Your task to perform on an android device: Go to location settings Image 0: 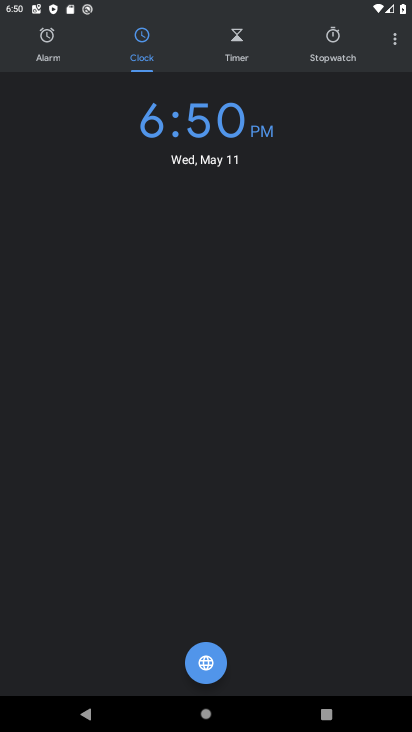
Step 0: click (42, 407)
Your task to perform on an android device: Go to location settings Image 1: 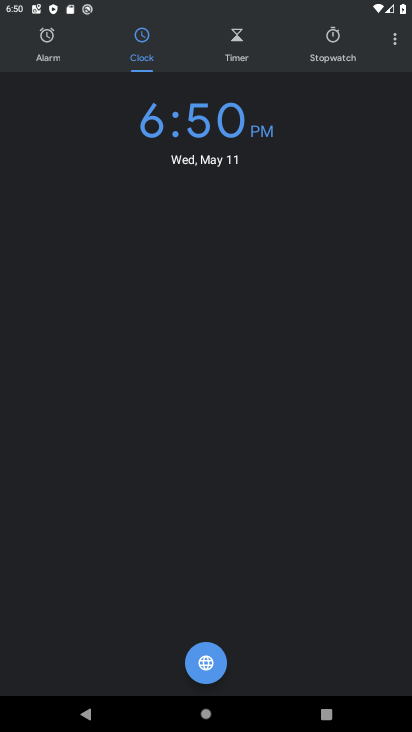
Step 1: press home button
Your task to perform on an android device: Go to location settings Image 2: 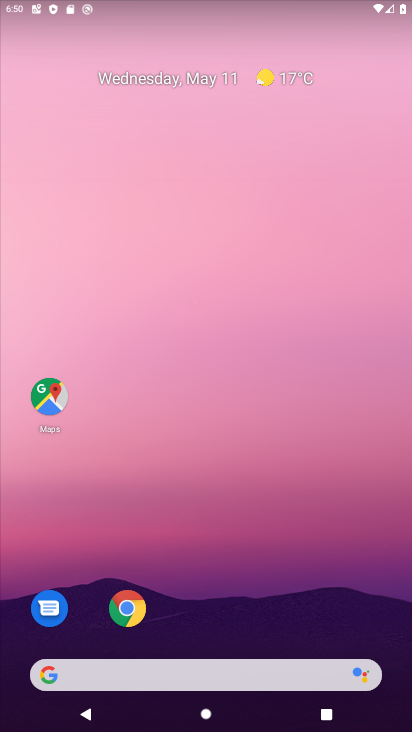
Step 2: drag from (264, 612) to (335, 20)
Your task to perform on an android device: Go to location settings Image 3: 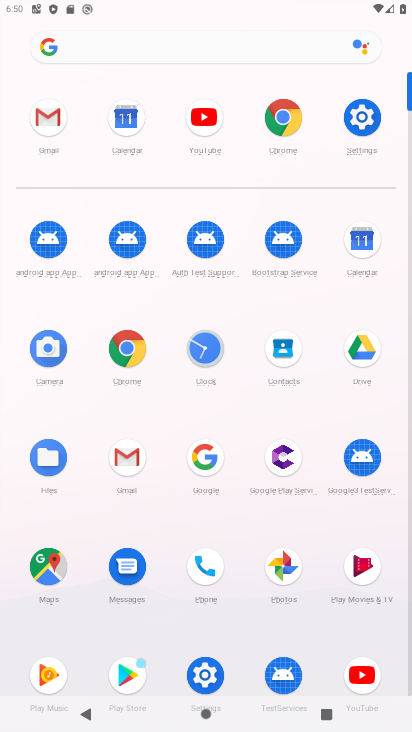
Step 3: click (361, 154)
Your task to perform on an android device: Go to location settings Image 4: 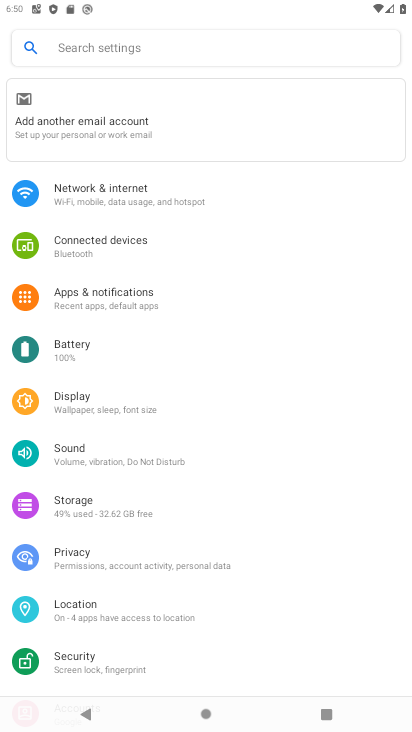
Step 4: drag from (150, 529) to (184, 326)
Your task to perform on an android device: Go to location settings Image 5: 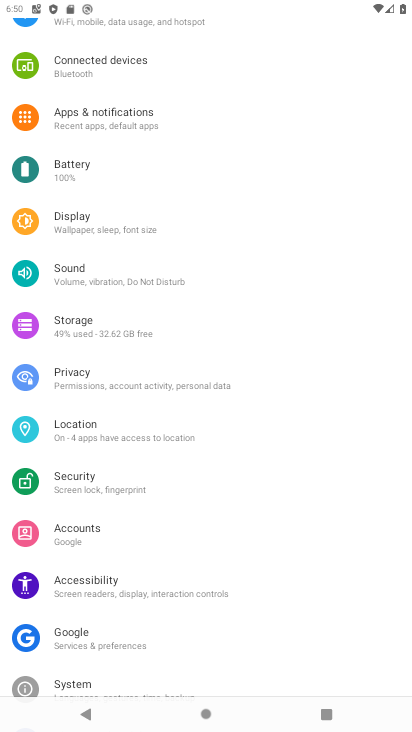
Step 5: click (148, 438)
Your task to perform on an android device: Go to location settings Image 6: 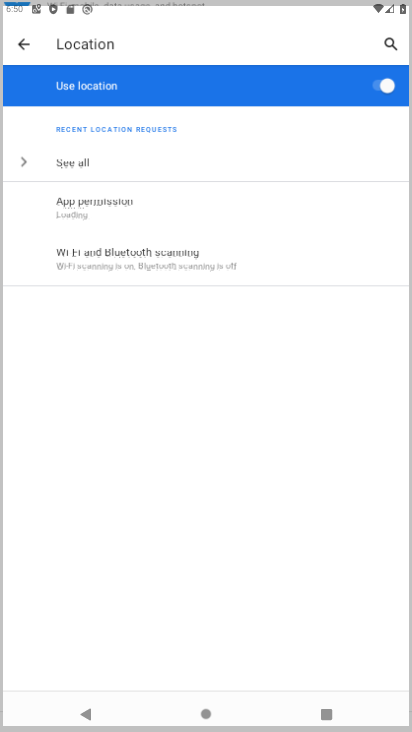
Step 6: task complete